Your task to perform on an android device: Search for hotels in Zurich Image 0: 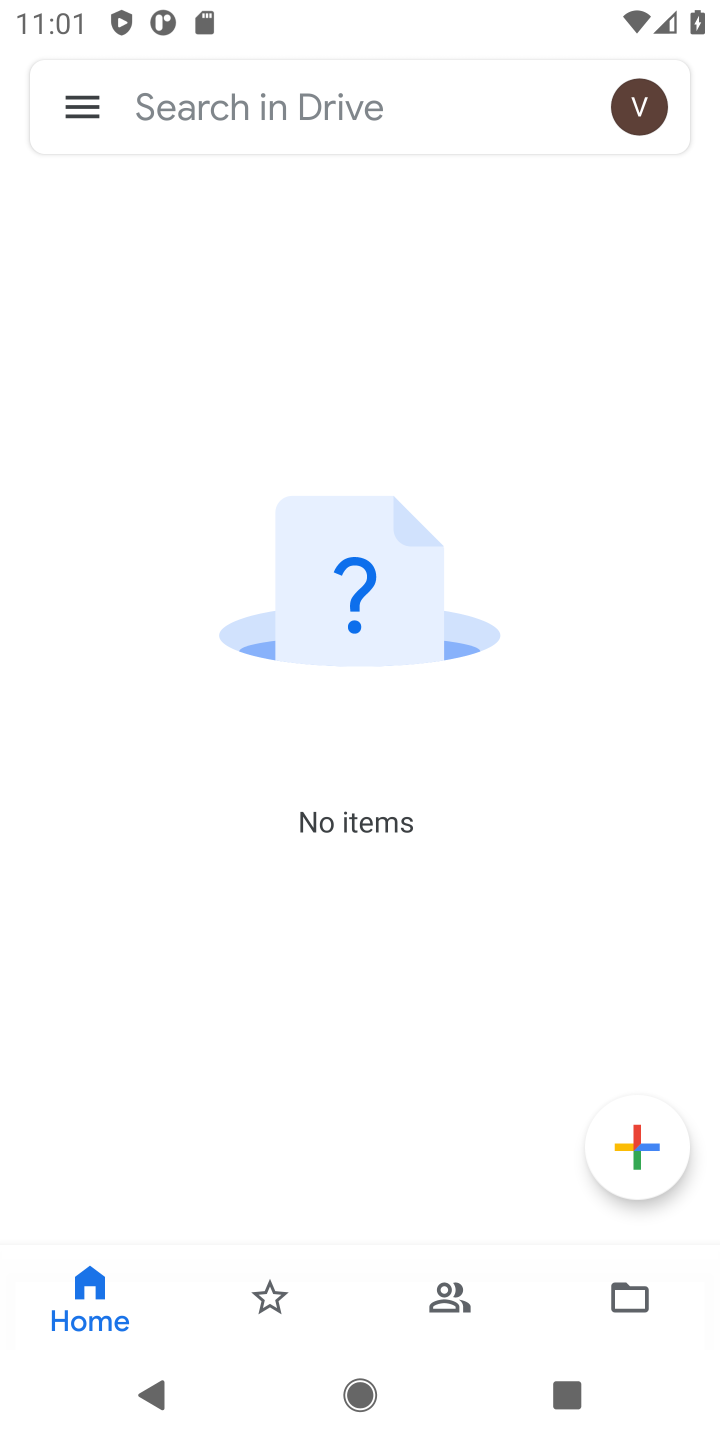
Step 0: press home button
Your task to perform on an android device: Search for hotels in Zurich Image 1: 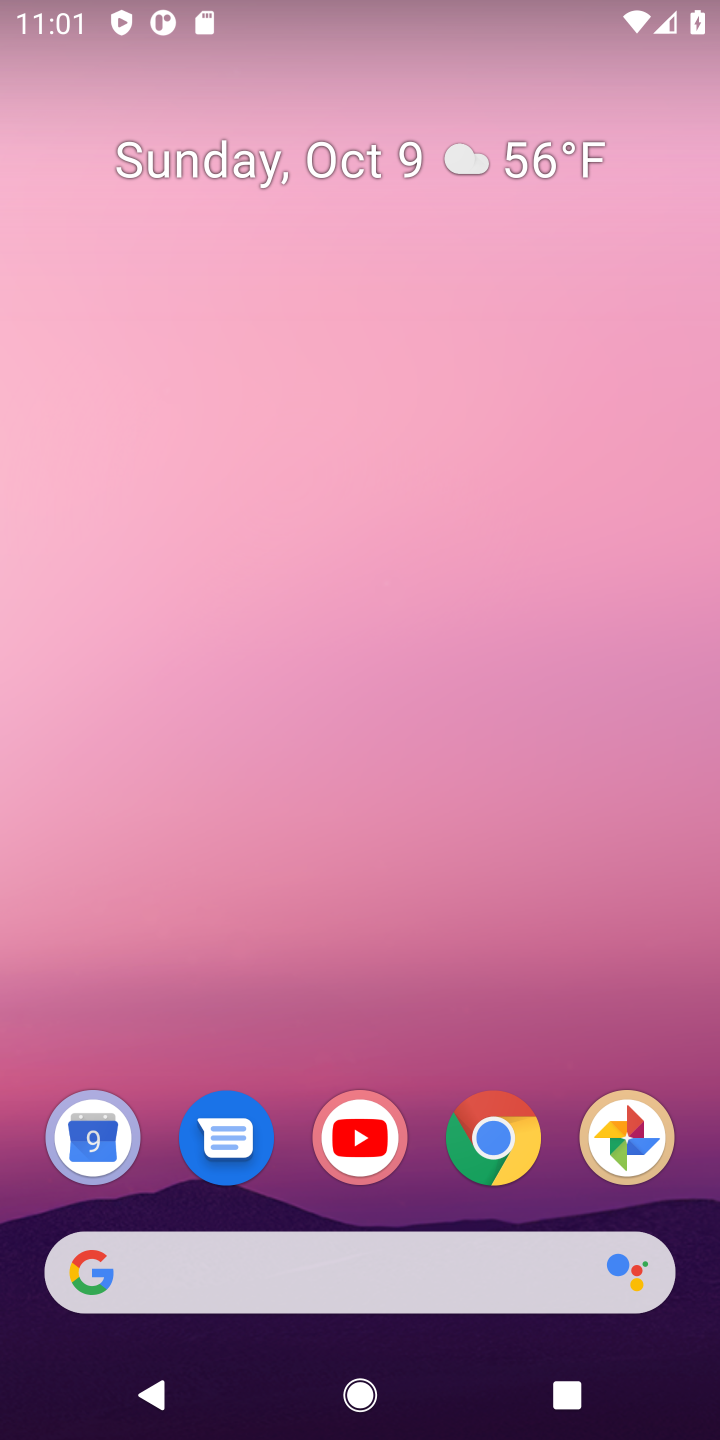
Step 1: click (495, 1127)
Your task to perform on an android device: Search for hotels in Zurich Image 2: 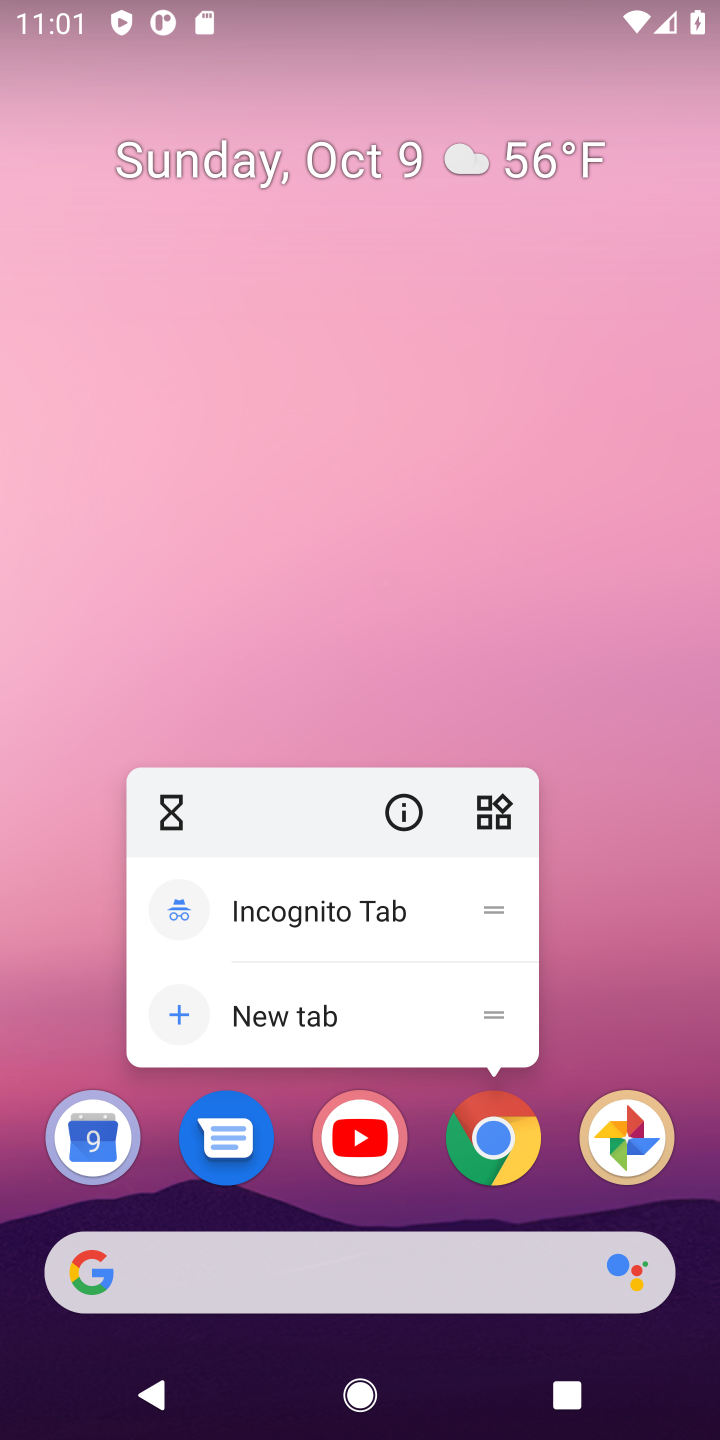
Step 2: click (606, 910)
Your task to perform on an android device: Search for hotels in Zurich Image 3: 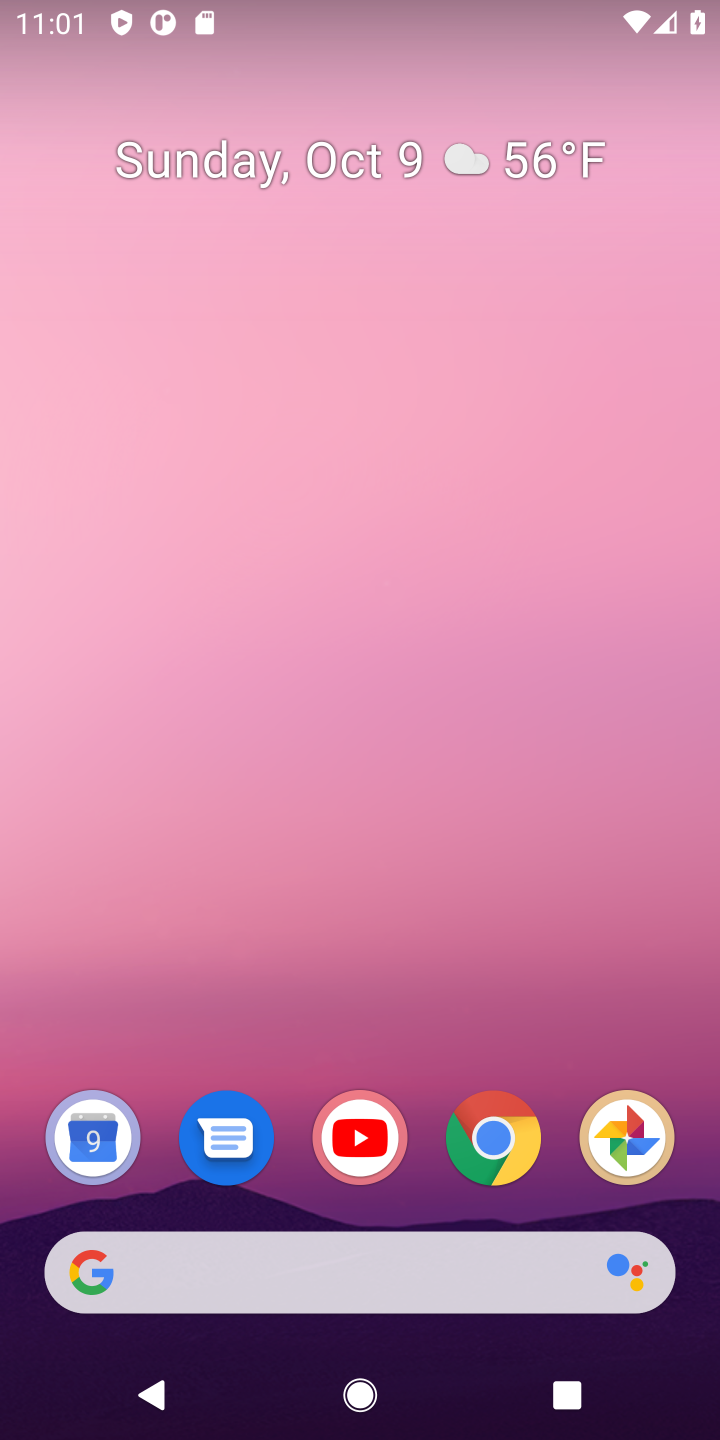
Step 3: click (497, 1129)
Your task to perform on an android device: Search for hotels in Zurich Image 4: 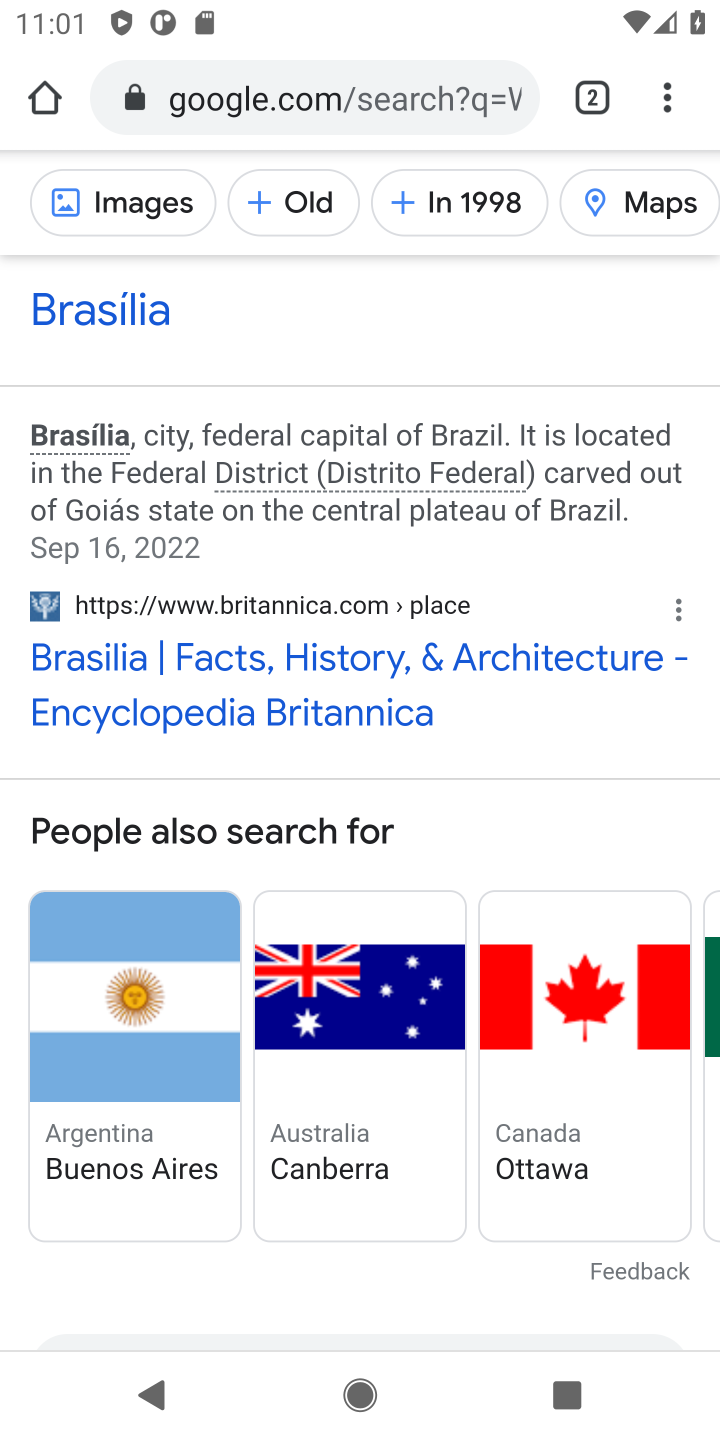
Step 4: drag from (323, 270) to (292, 1373)
Your task to perform on an android device: Search for hotels in Zurich Image 5: 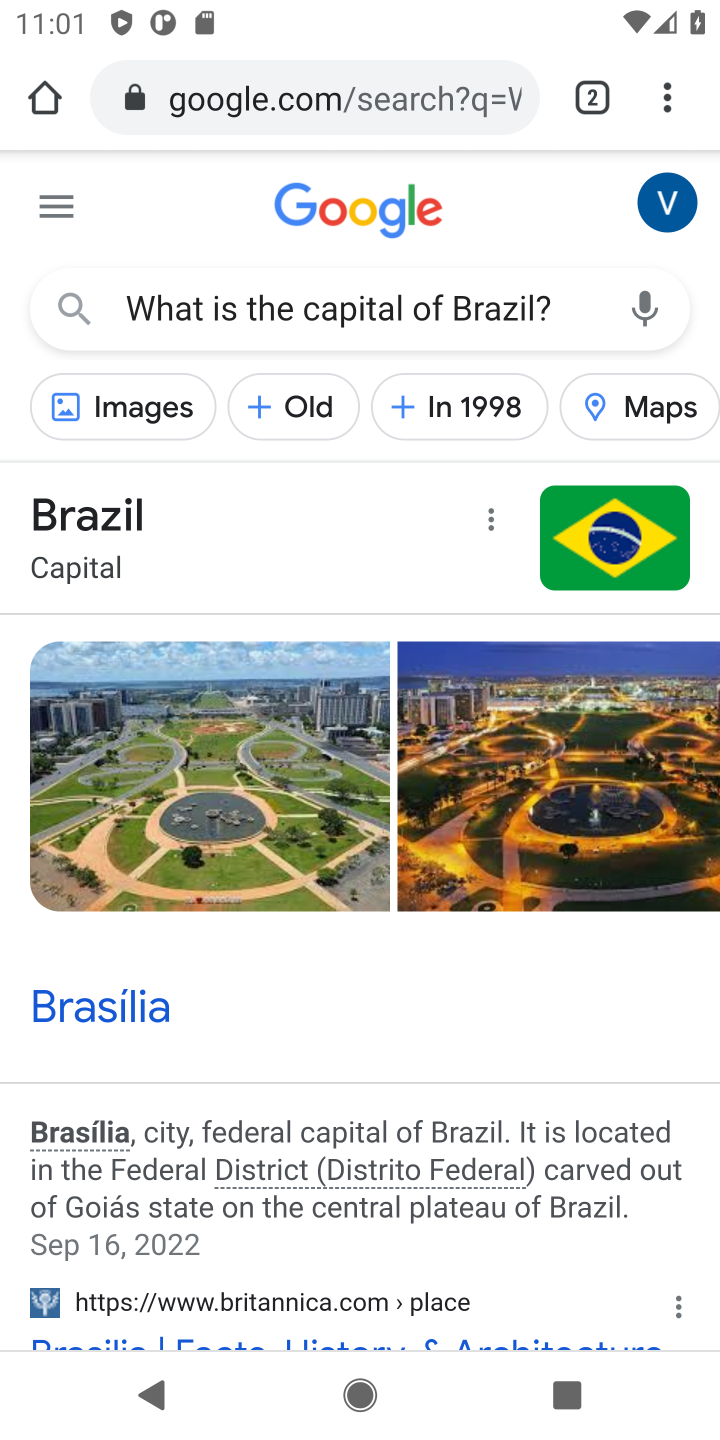
Step 5: click (222, 94)
Your task to perform on an android device: Search for hotels in Zurich Image 6: 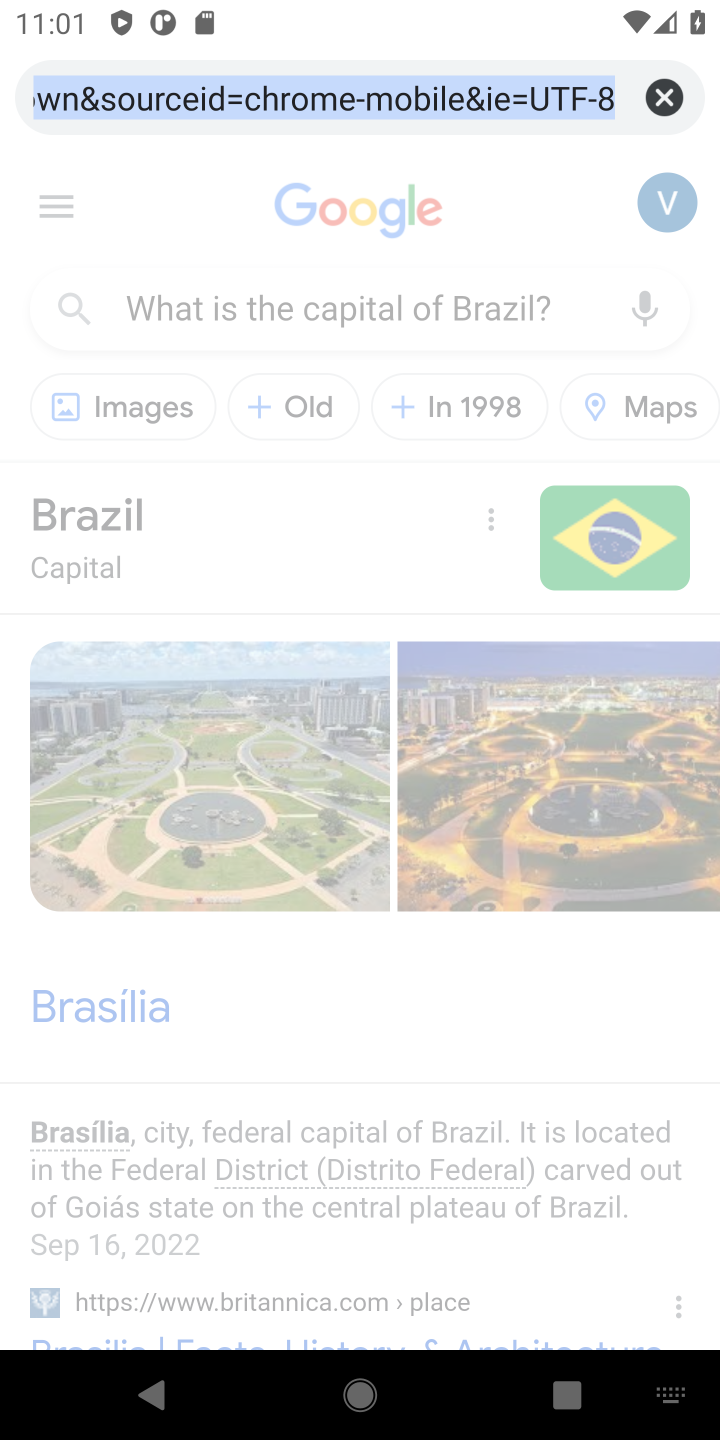
Step 6: click (659, 98)
Your task to perform on an android device: Search for hotels in Zurich Image 7: 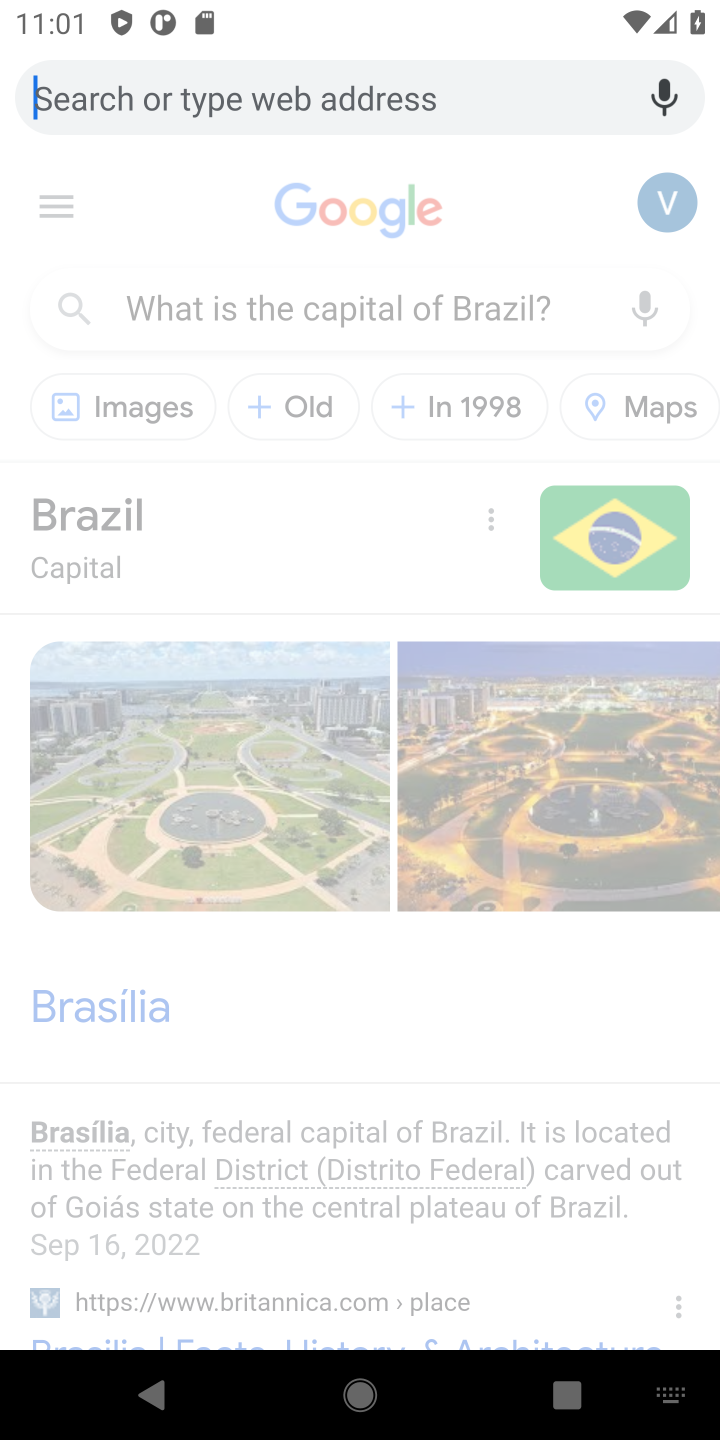
Step 7: type "Search for hotels in Zurich"
Your task to perform on an android device: Search for hotels in Zurich Image 8: 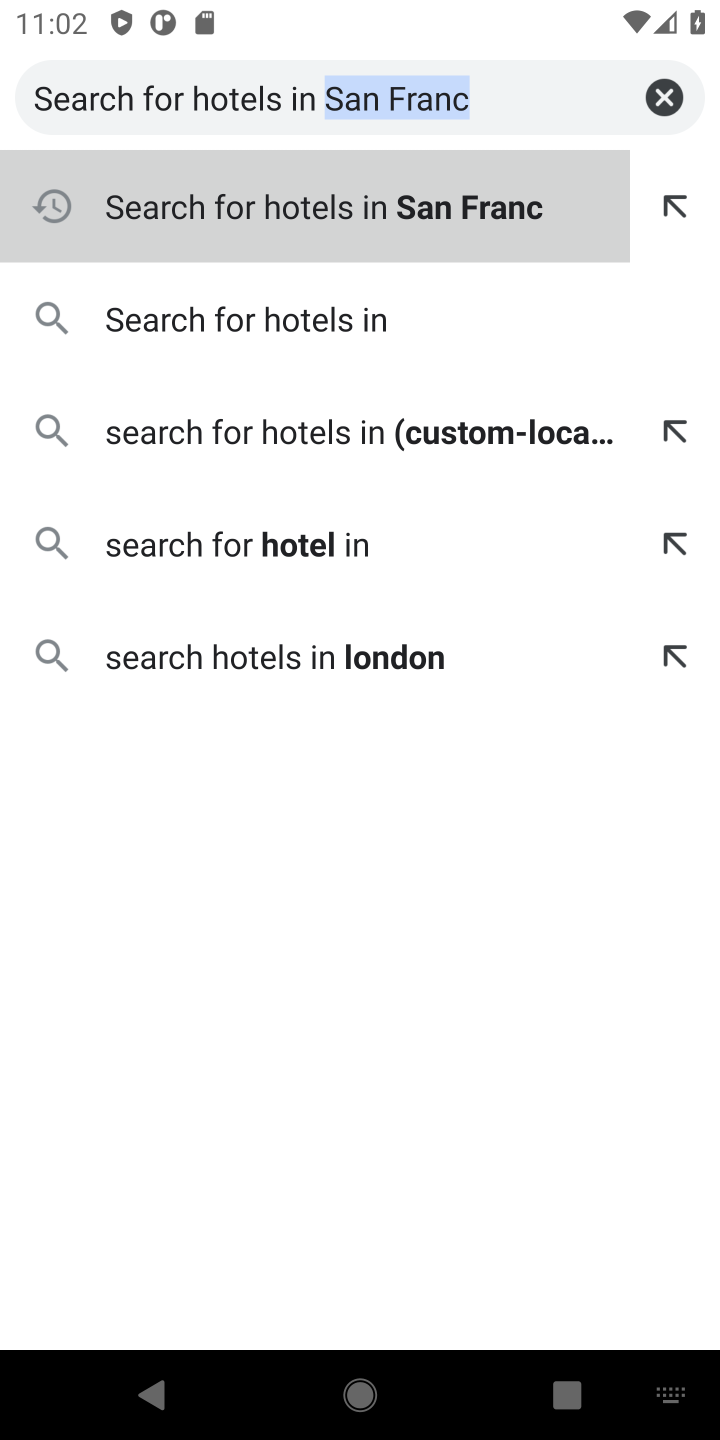
Step 8: click (503, 206)
Your task to perform on an android device: Search for hotels in Zurich Image 9: 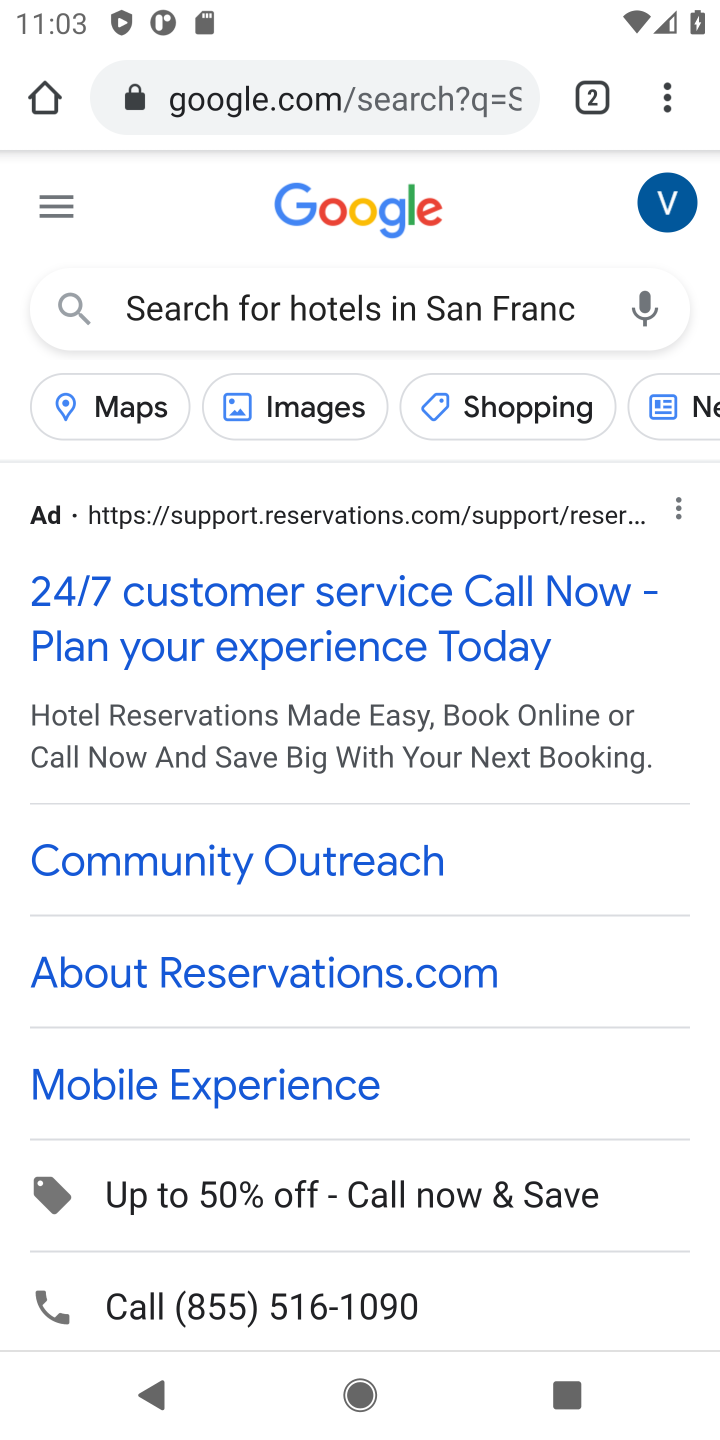
Step 9: click (341, 113)
Your task to perform on an android device: Search for hotels in Zurich Image 10: 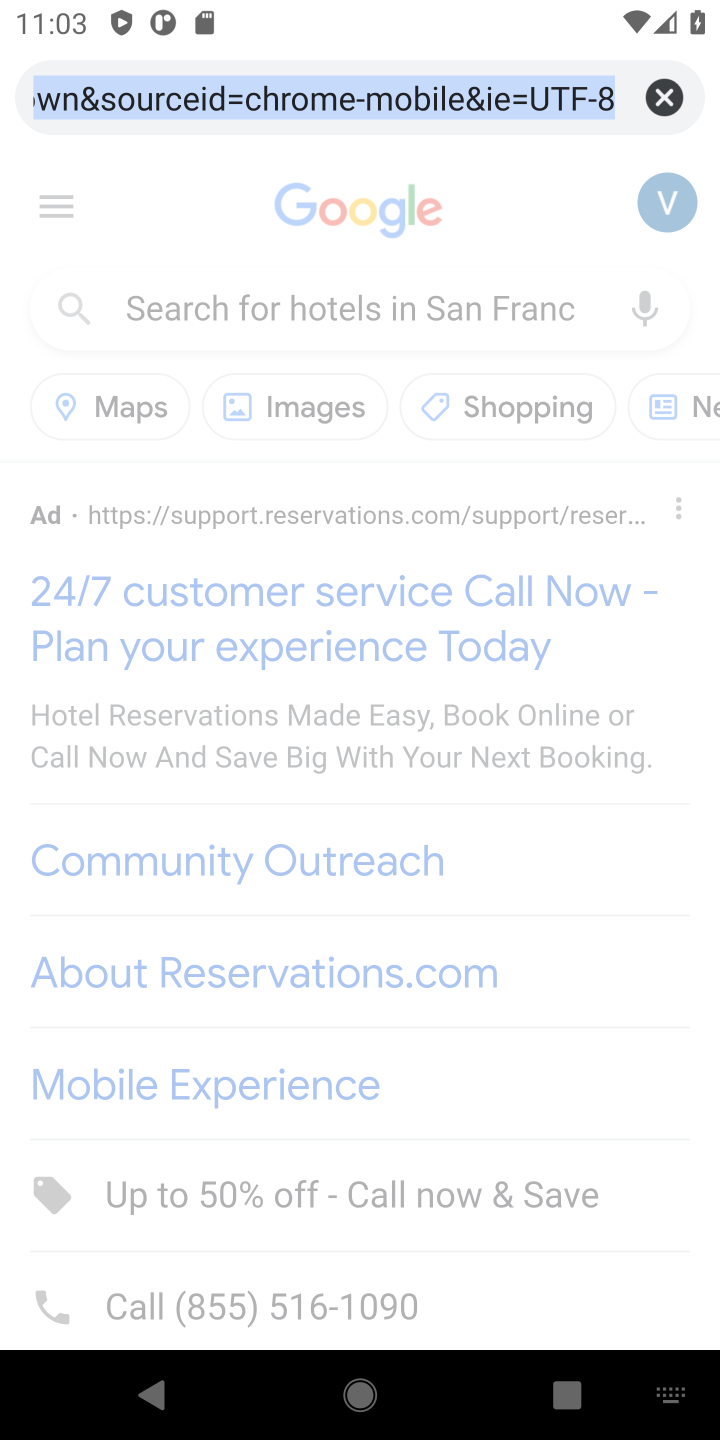
Step 10: click (666, 96)
Your task to perform on an android device: Search for hotels in Zurich Image 11: 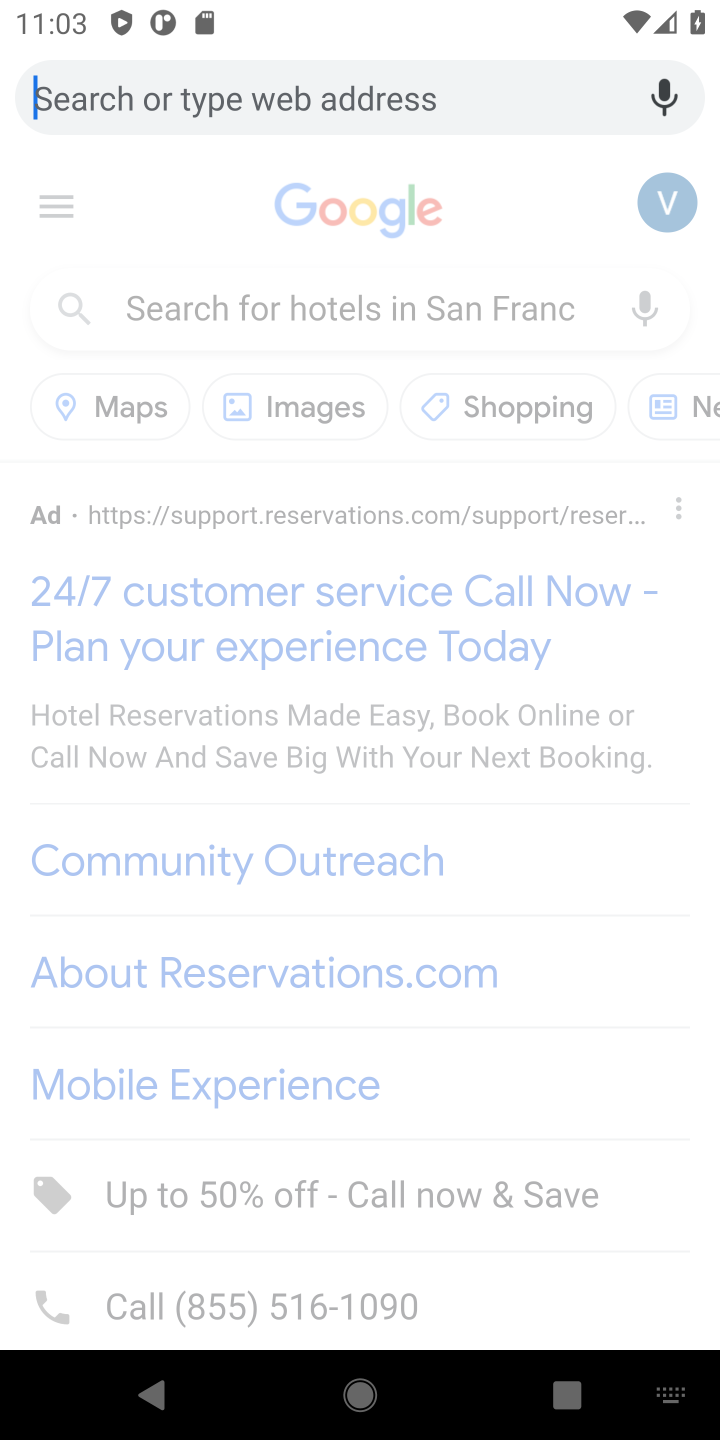
Step 11: type "Search for hotels in Zurich"
Your task to perform on an android device: Search for hotels in Zurich Image 12: 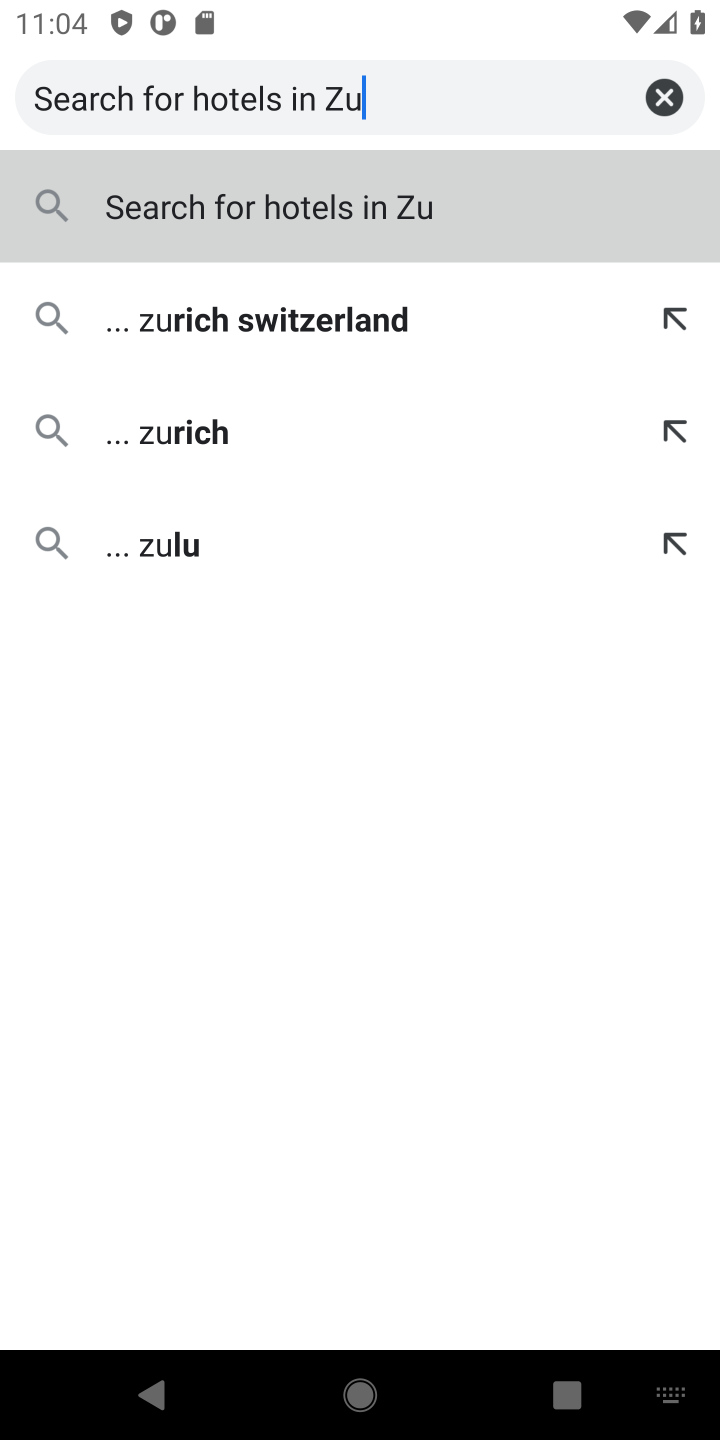
Step 12: click (287, 204)
Your task to perform on an android device: Search for hotels in Zurich Image 13: 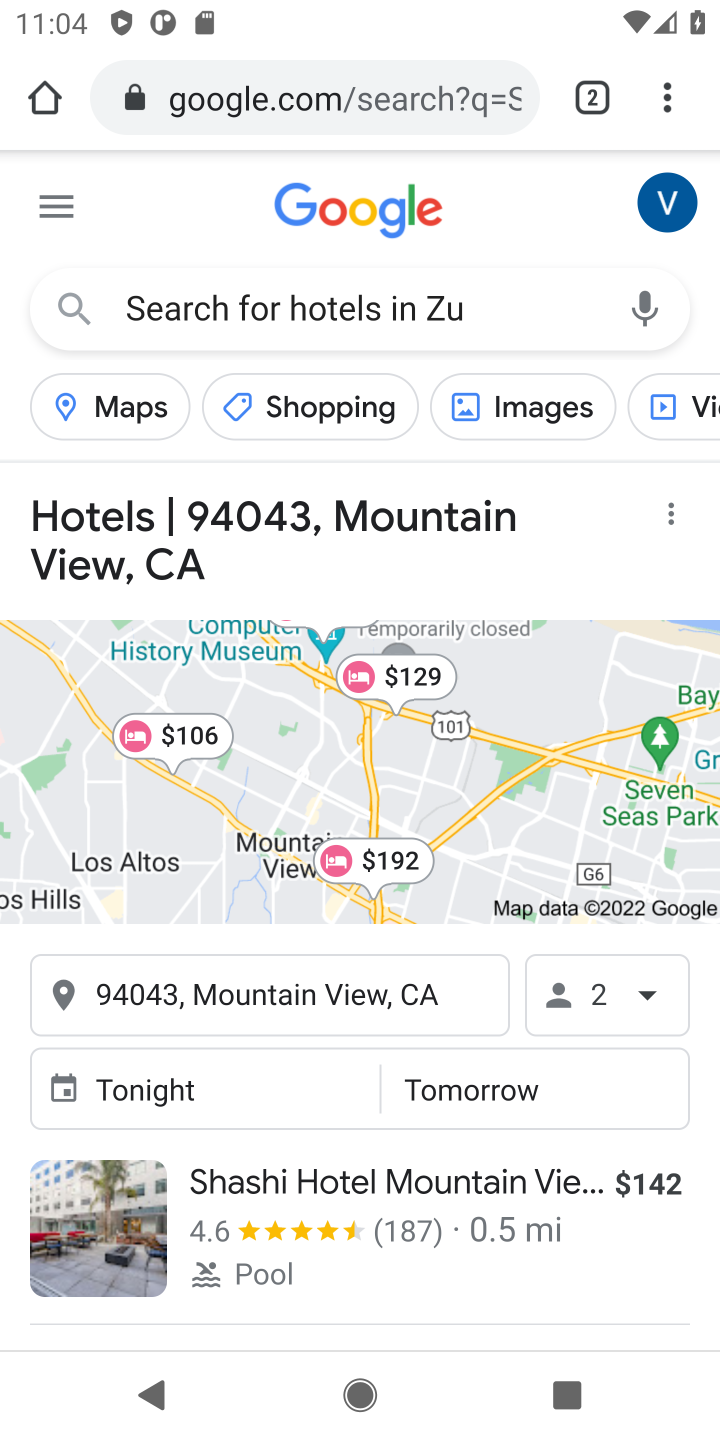
Step 13: task complete